Your task to perform on an android device: Open battery settings Image 0: 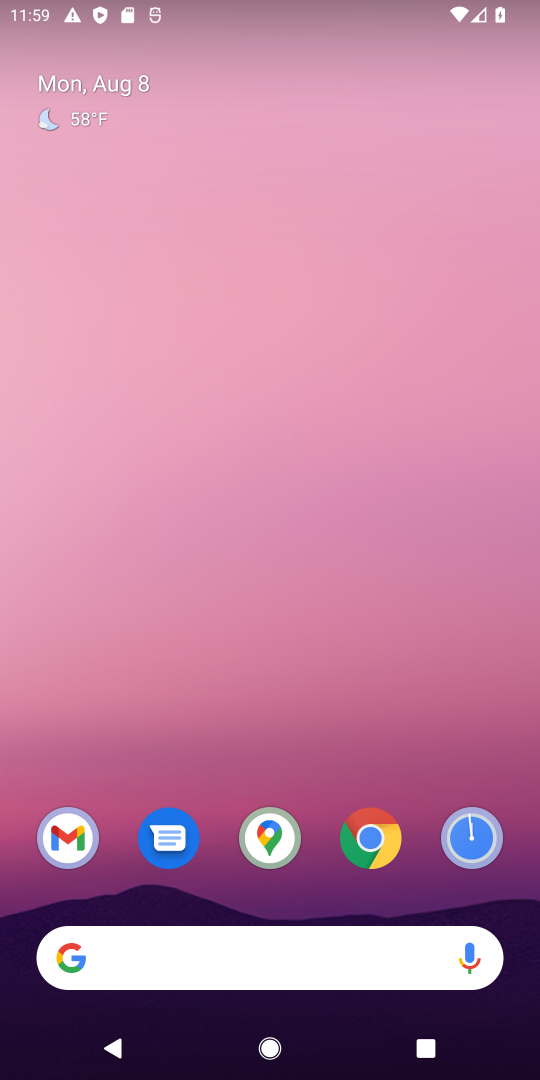
Step 0: press home button
Your task to perform on an android device: Open battery settings Image 1: 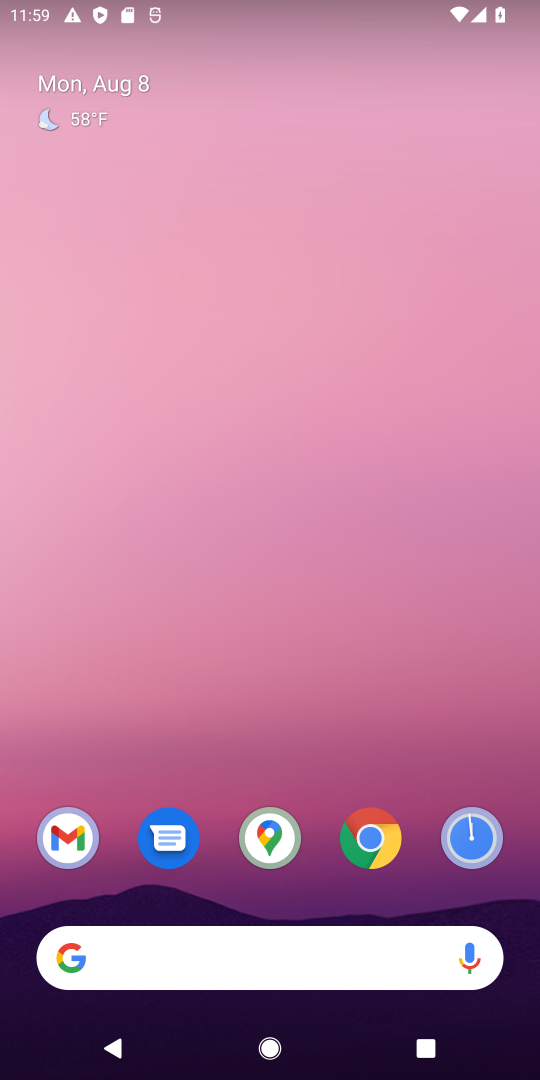
Step 1: click (537, 633)
Your task to perform on an android device: Open battery settings Image 2: 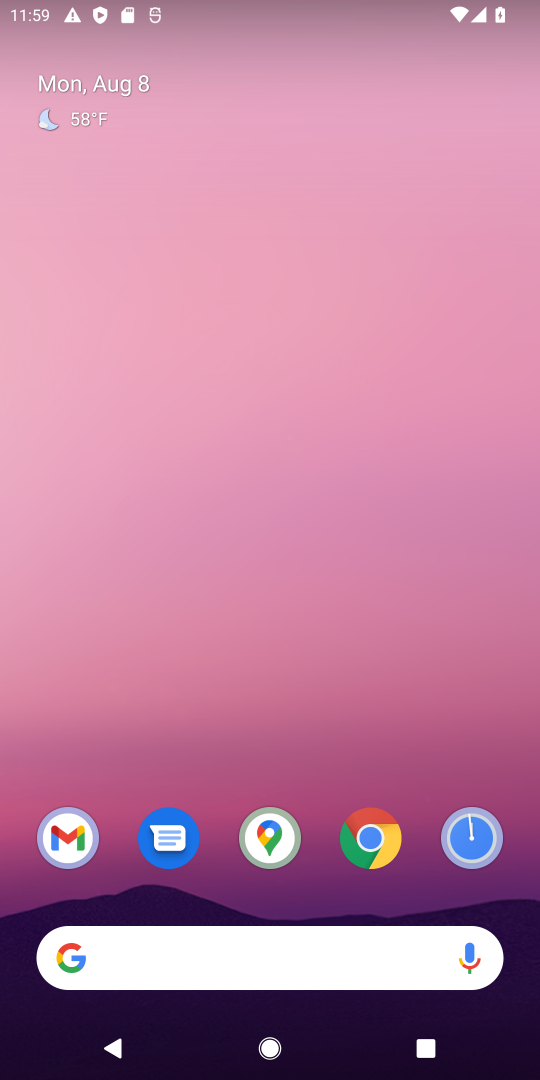
Step 2: drag from (378, 667) to (481, 4)
Your task to perform on an android device: Open battery settings Image 3: 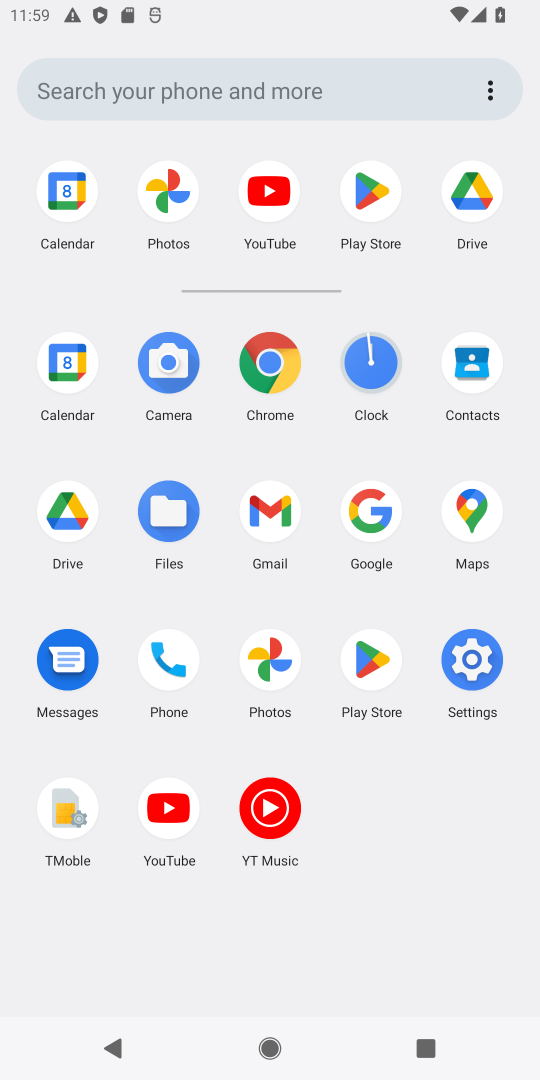
Step 3: click (470, 674)
Your task to perform on an android device: Open battery settings Image 4: 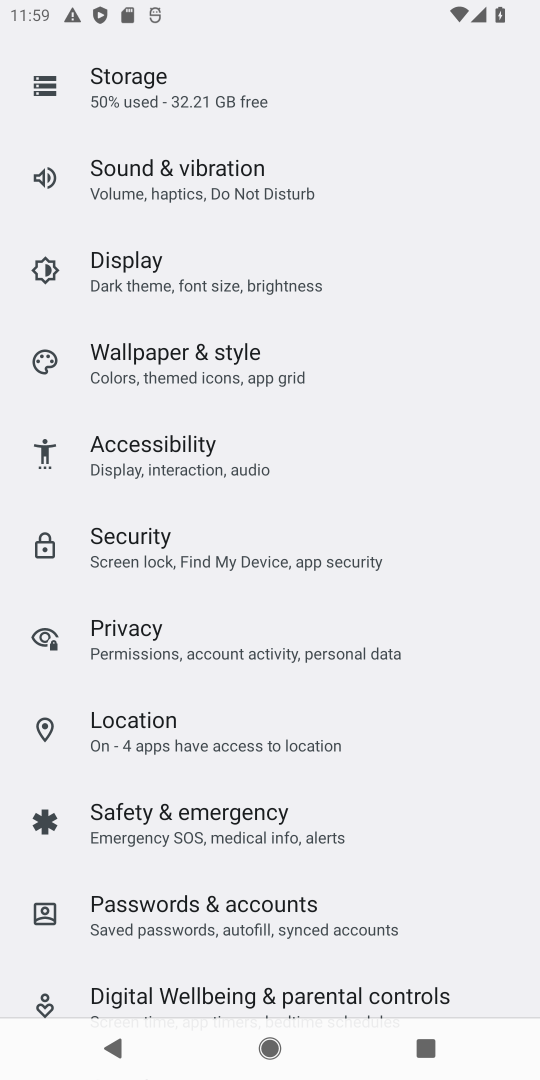
Step 4: drag from (434, 323) to (390, 1018)
Your task to perform on an android device: Open battery settings Image 5: 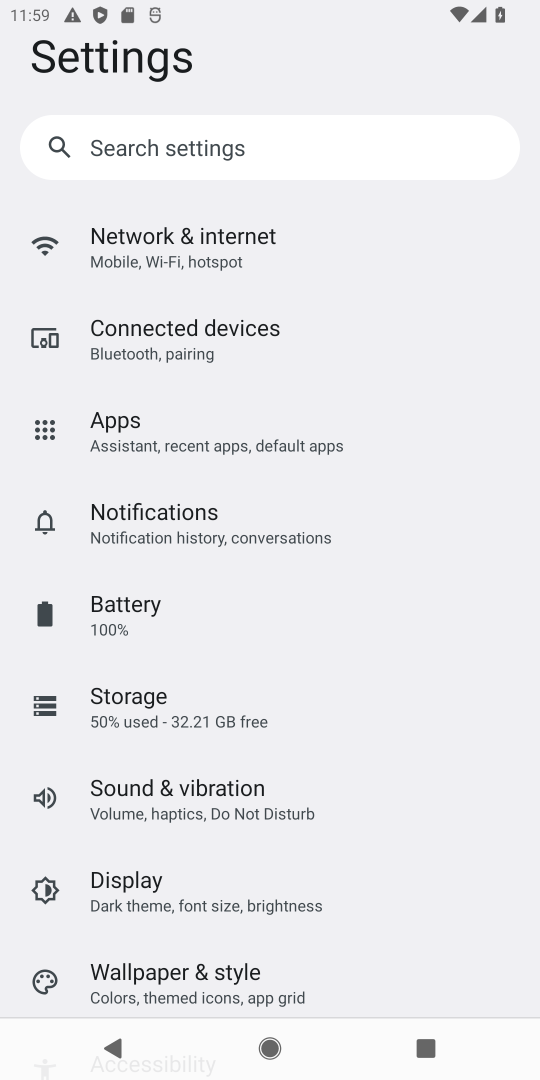
Step 5: click (119, 600)
Your task to perform on an android device: Open battery settings Image 6: 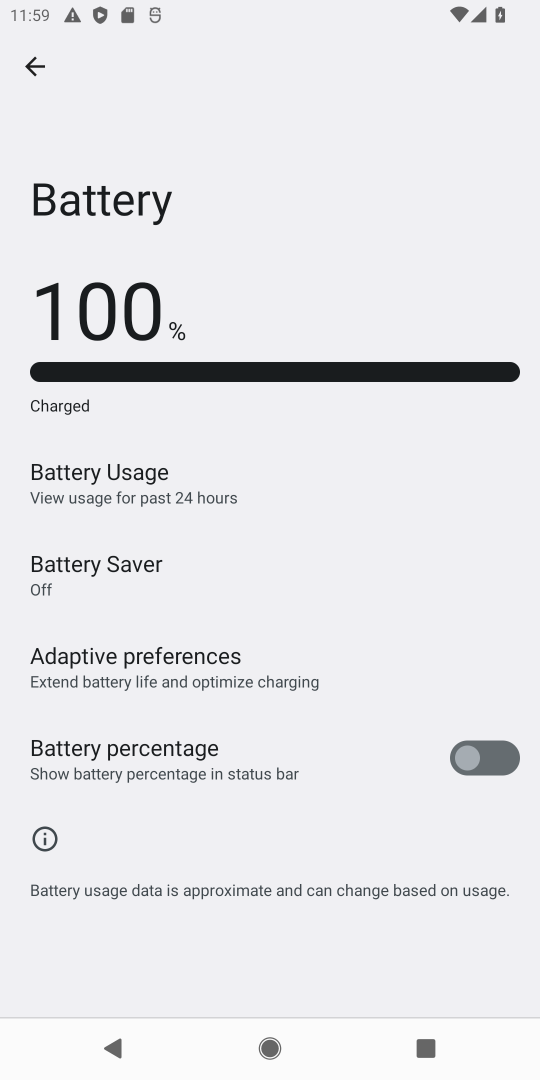
Step 6: task complete